Your task to perform on an android device: Go to location settings Image 0: 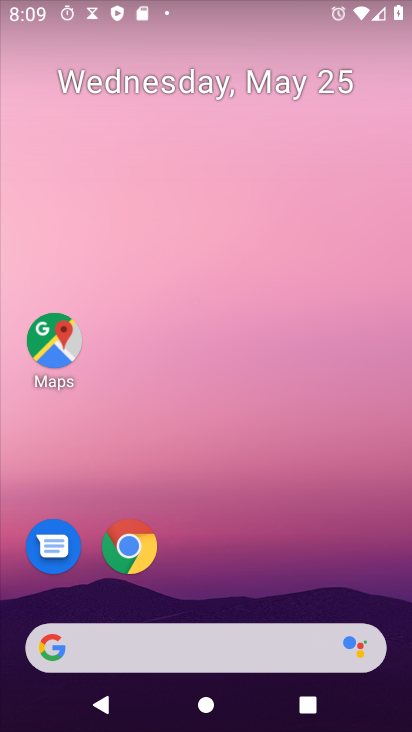
Step 0: drag from (189, 572) to (241, 0)
Your task to perform on an android device: Go to location settings Image 1: 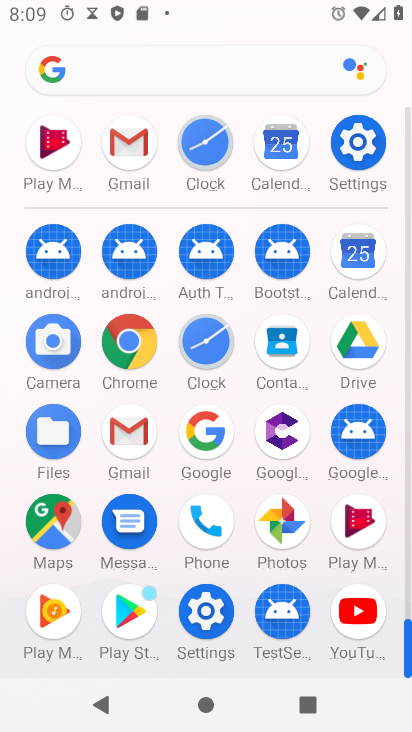
Step 1: click (347, 148)
Your task to perform on an android device: Go to location settings Image 2: 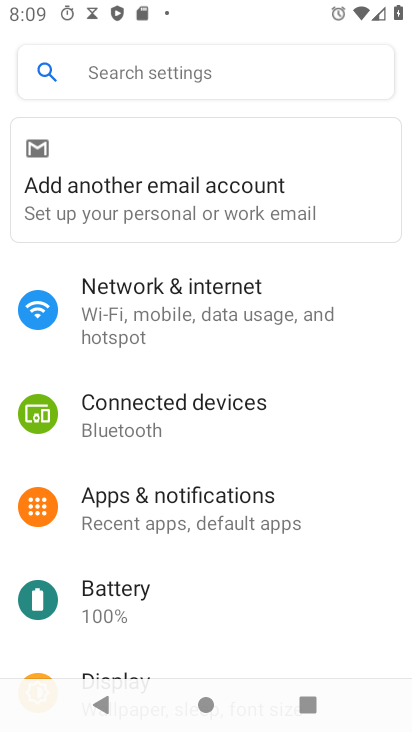
Step 2: drag from (150, 584) to (173, 282)
Your task to perform on an android device: Go to location settings Image 3: 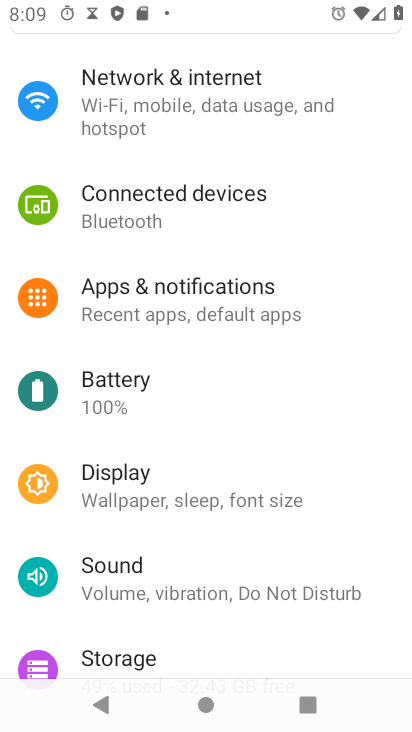
Step 3: drag from (141, 612) to (233, 263)
Your task to perform on an android device: Go to location settings Image 4: 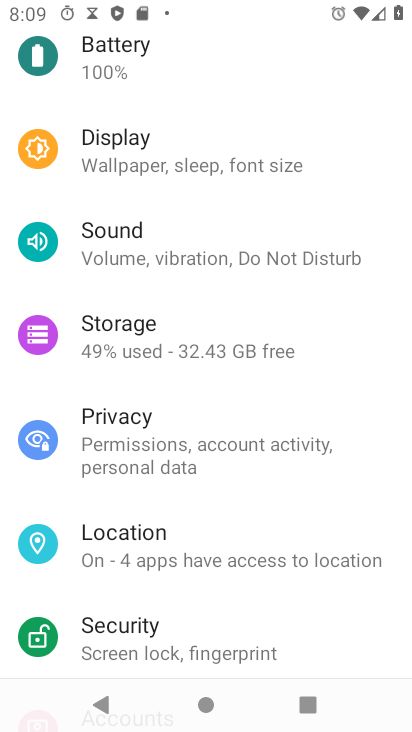
Step 4: click (111, 546)
Your task to perform on an android device: Go to location settings Image 5: 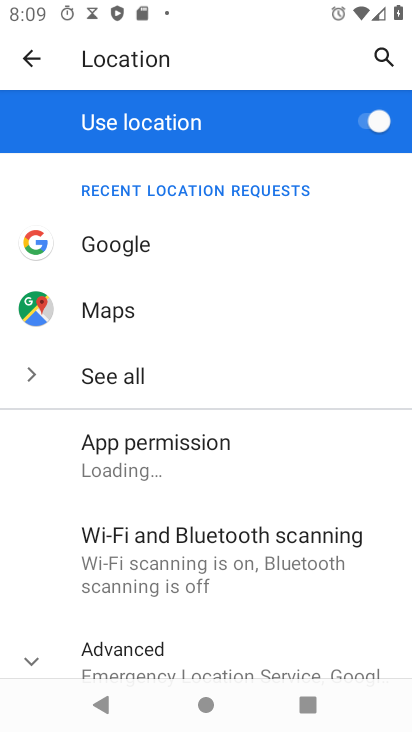
Step 5: task complete